Your task to perform on an android device: turn off notifications in google photos Image 0: 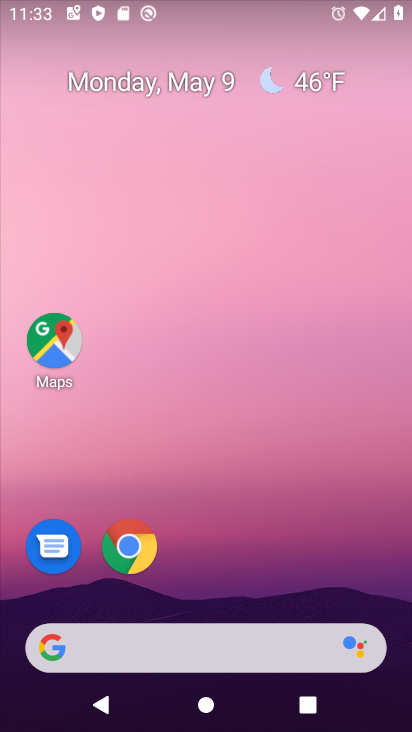
Step 0: drag from (314, 581) to (293, 0)
Your task to perform on an android device: turn off notifications in google photos Image 1: 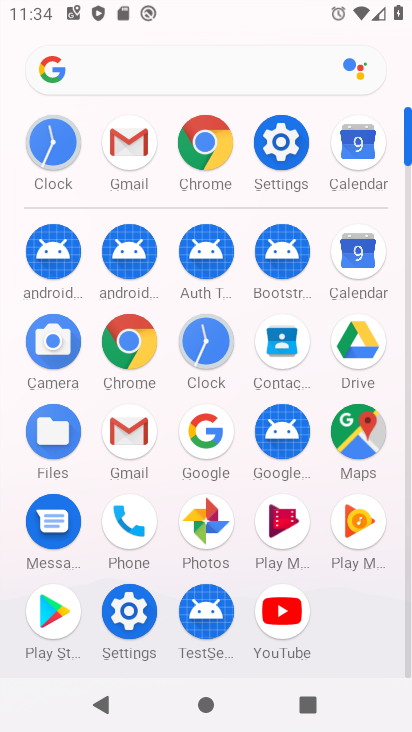
Step 1: click (203, 519)
Your task to perform on an android device: turn off notifications in google photos Image 2: 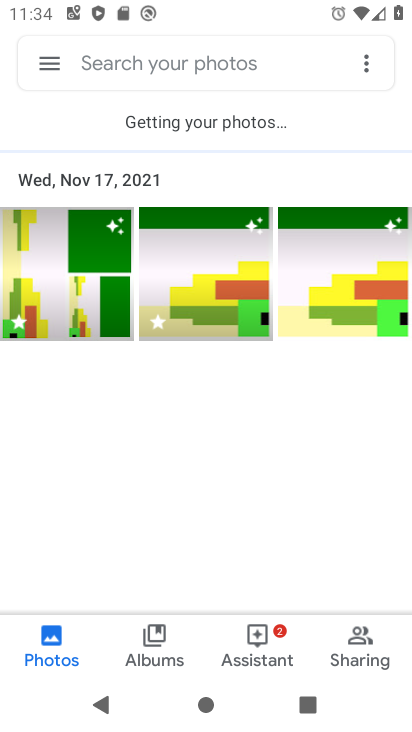
Step 2: click (53, 66)
Your task to perform on an android device: turn off notifications in google photos Image 3: 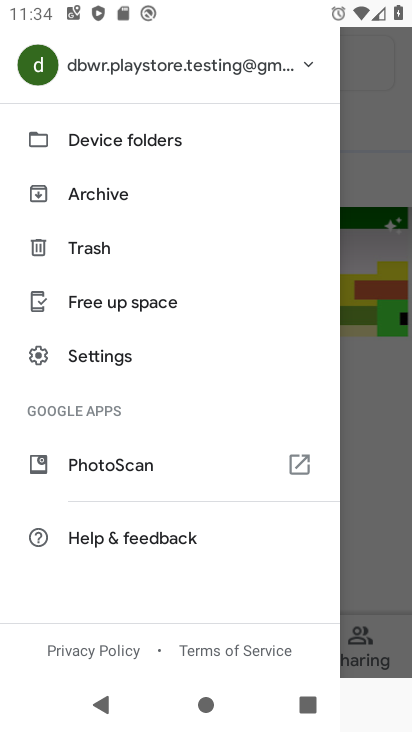
Step 3: click (101, 364)
Your task to perform on an android device: turn off notifications in google photos Image 4: 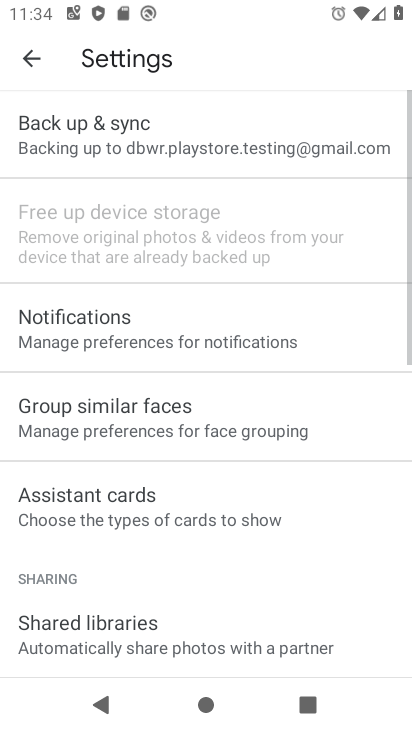
Step 4: click (107, 334)
Your task to perform on an android device: turn off notifications in google photos Image 5: 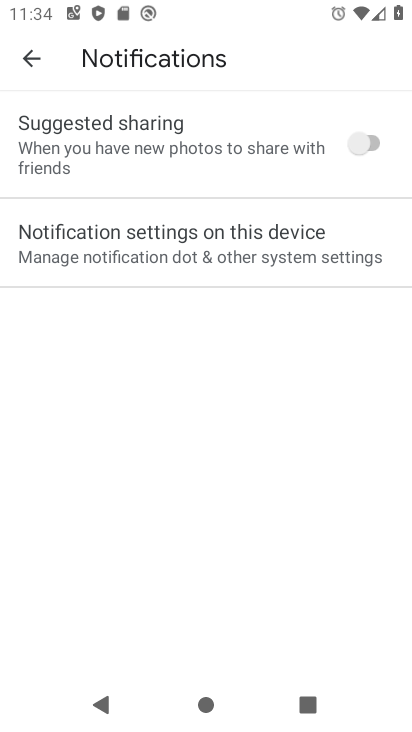
Step 5: click (241, 256)
Your task to perform on an android device: turn off notifications in google photos Image 6: 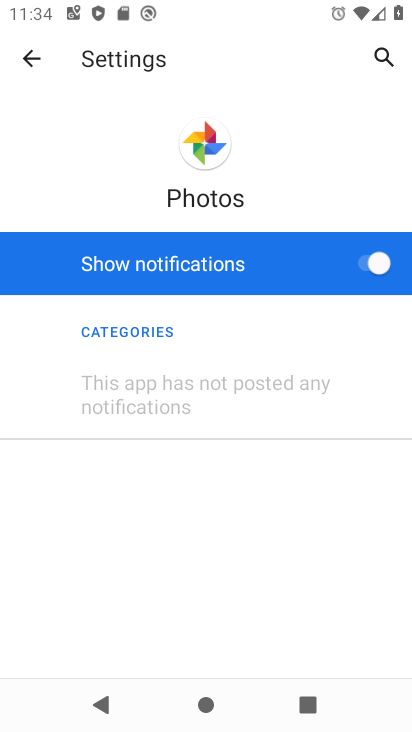
Step 6: click (371, 263)
Your task to perform on an android device: turn off notifications in google photos Image 7: 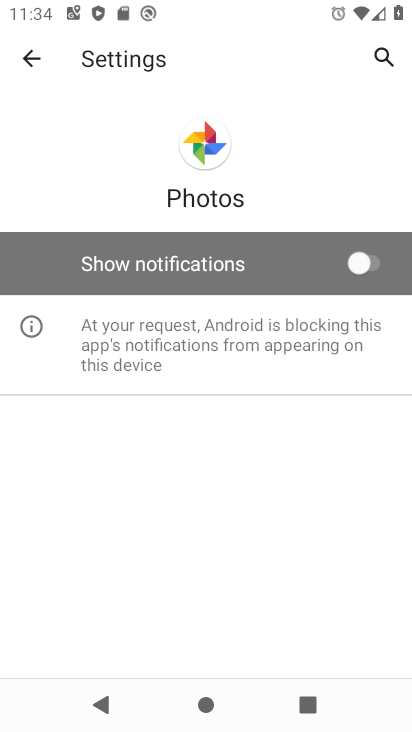
Step 7: task complete